Your task to perform on an android device: change the clock style Image 0: 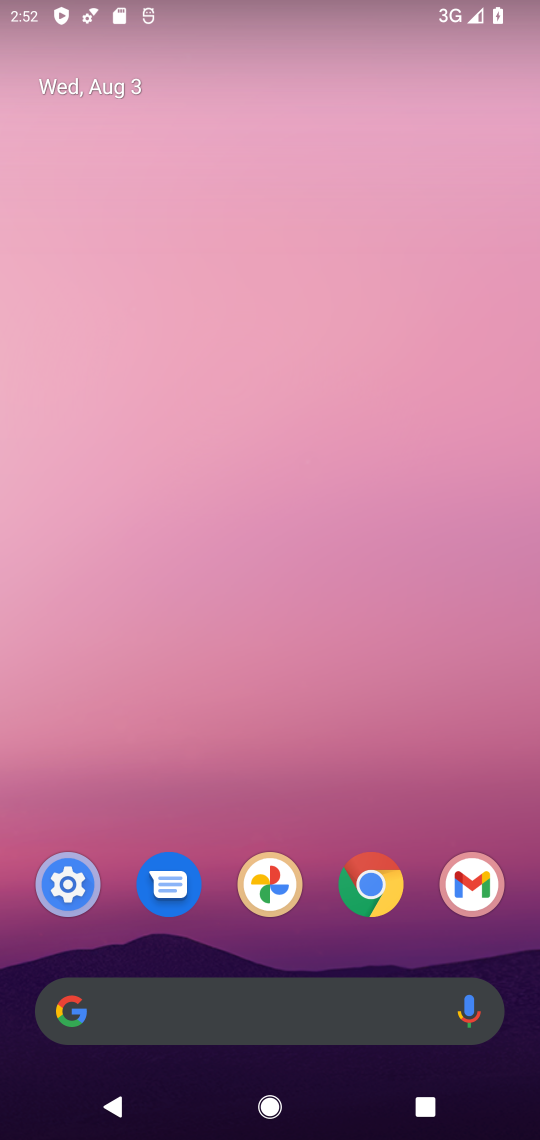
Step 0: drag from (309, 961) to (328, 234)
Your task to perform on an android device: change the clock style Image 1: 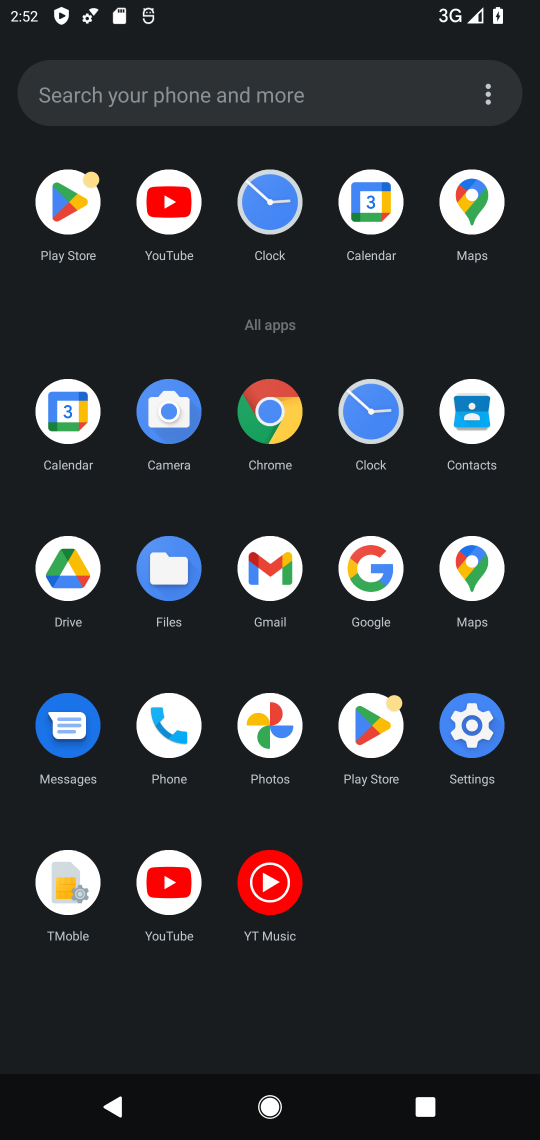
Step 1: click (272, 219)
Your task to perform on an android device: change the clock style Image 2: 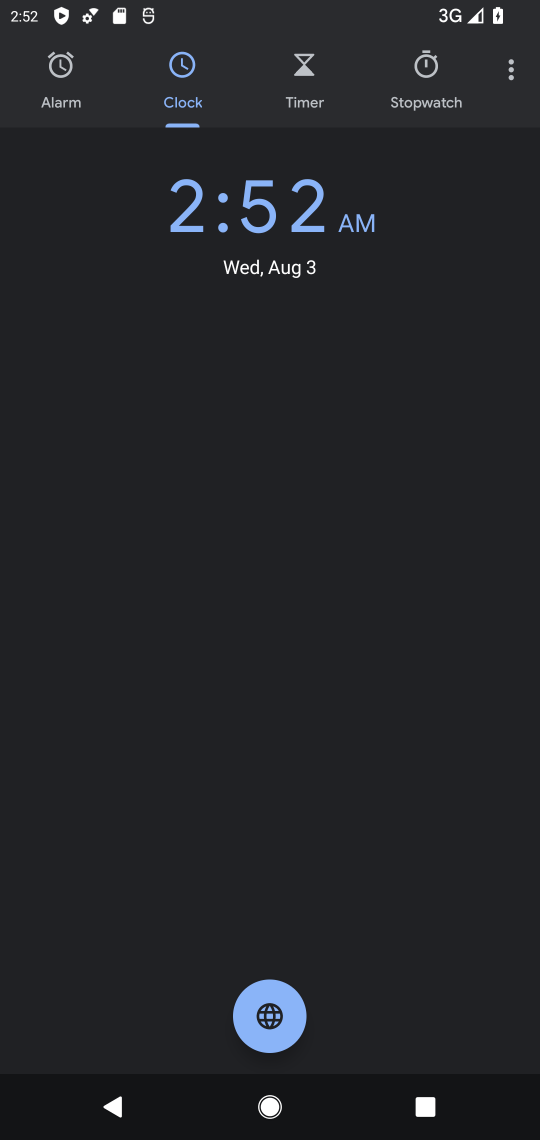
Step 2: task complete